Your task to perform on an android device: Open wifi settings Image 0: 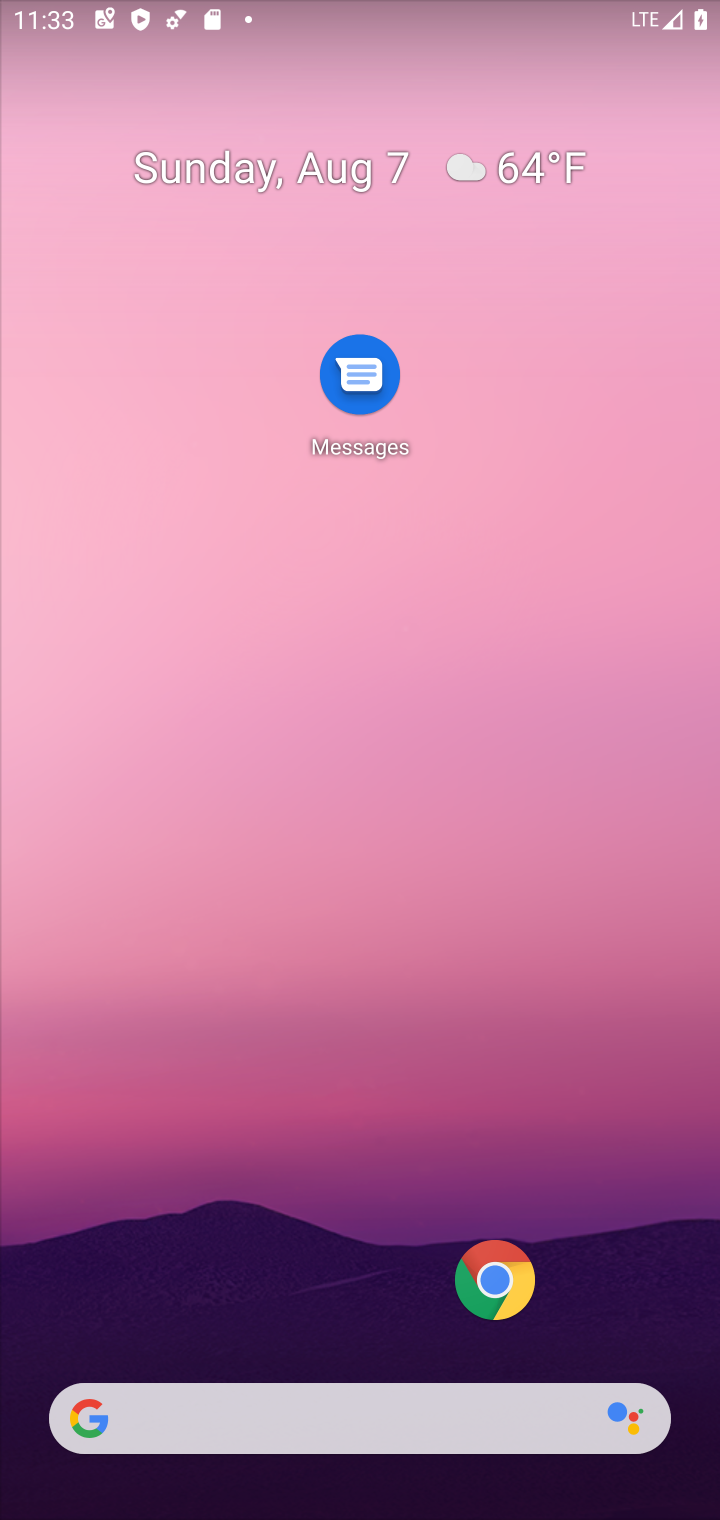
Step 0: drag from (213, 10) to (386, 1005)
Your task to perform on an android device: Open wifi settings Image 1: 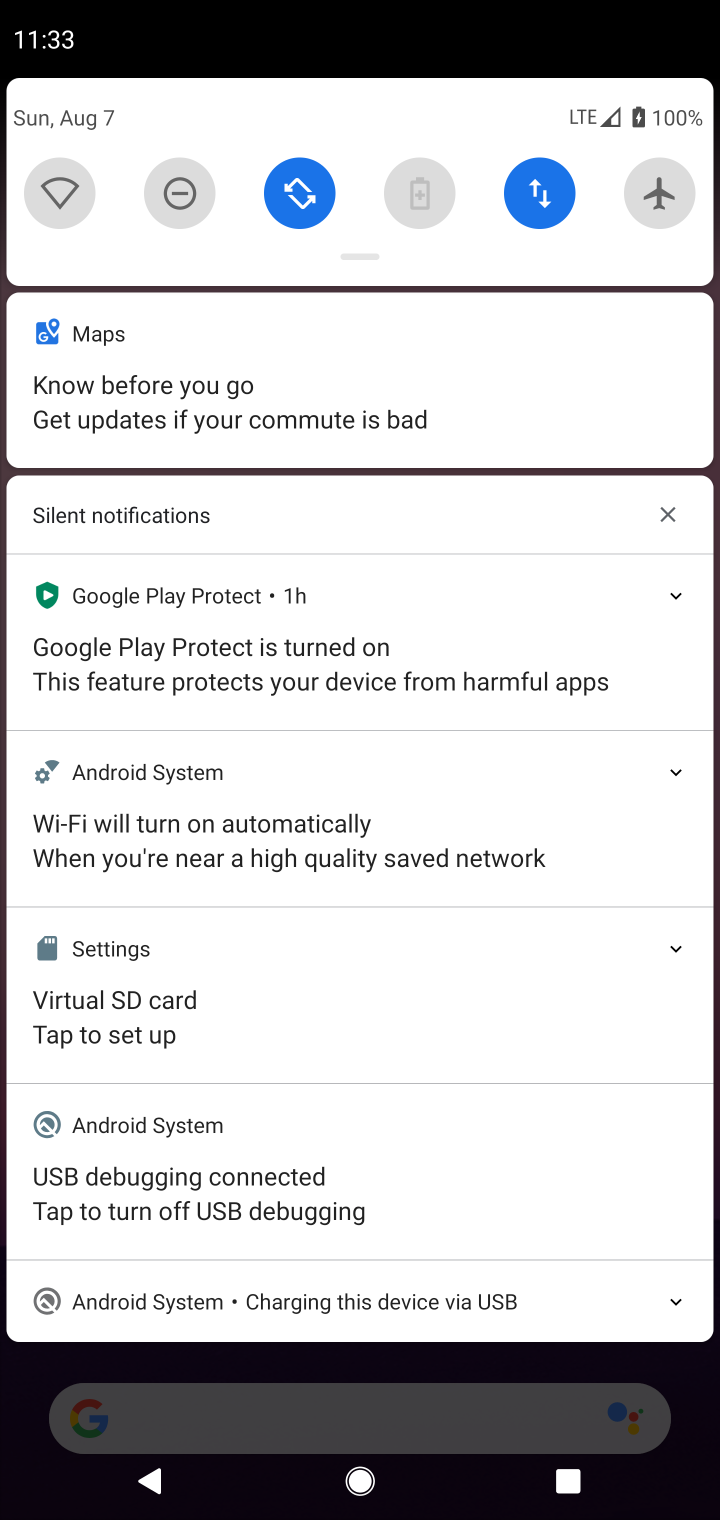
Step 1: click (57, 191)
Your task to perform on an android device: Open wifi settings Image 2: 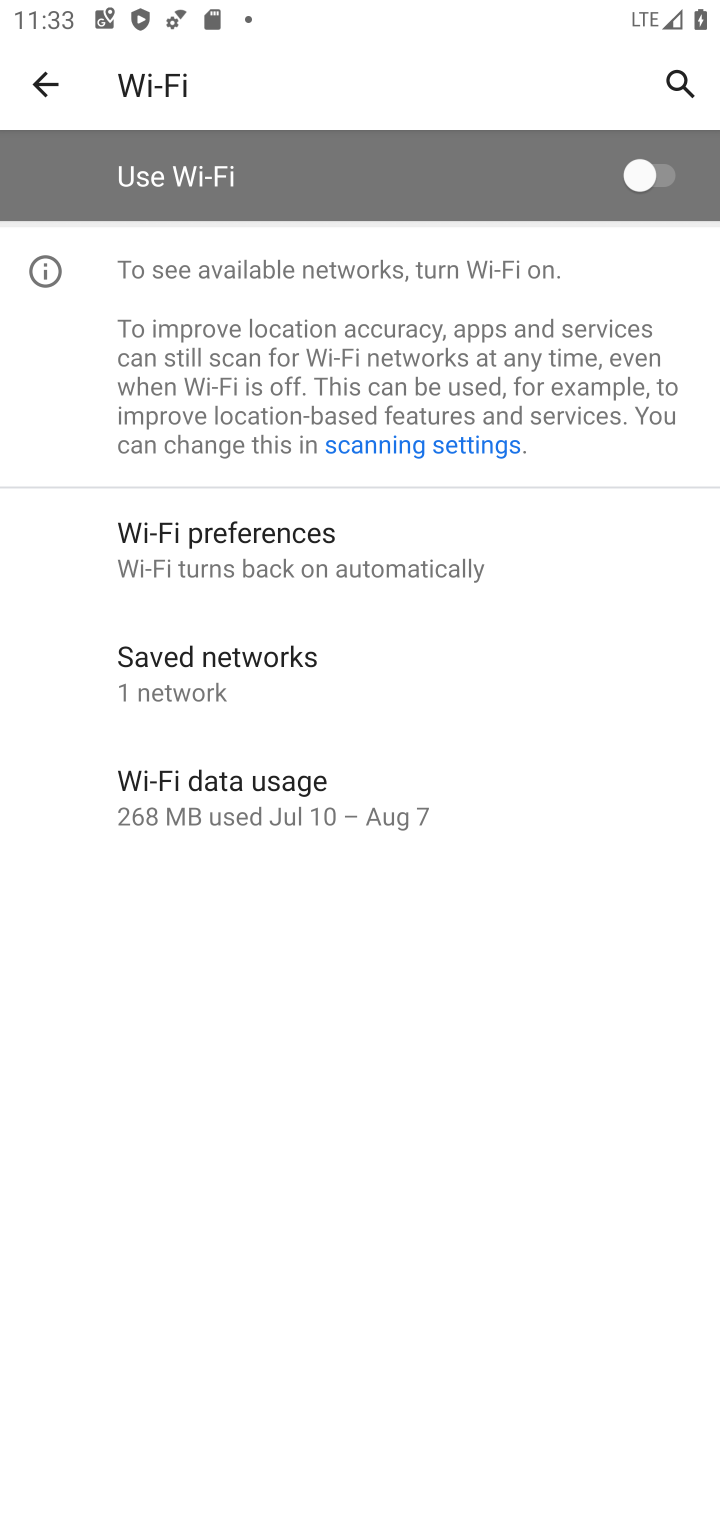
Step 2: task complete